Your task to perform on an android device: Open network settings Image 0: 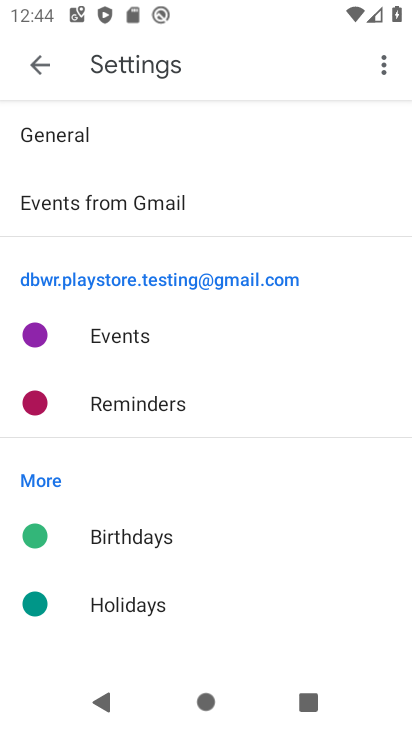
Step 0: press home button
Your task to perform on an android device: Open network settings Image 1: 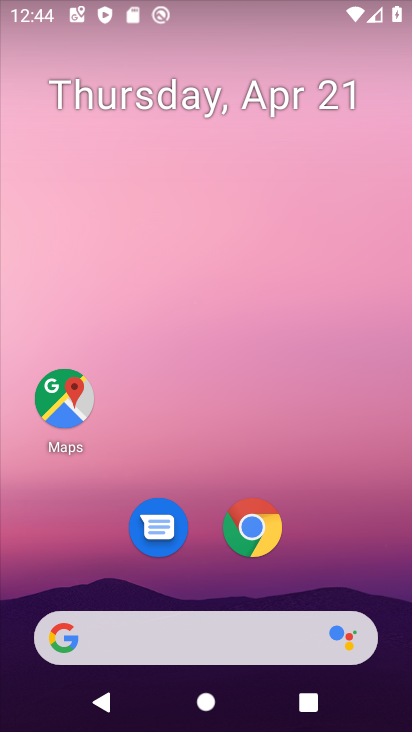
Step 1: drag from (350, 565) to (346, 92)
Your task to perform on an android device: Open network settings Image 2: 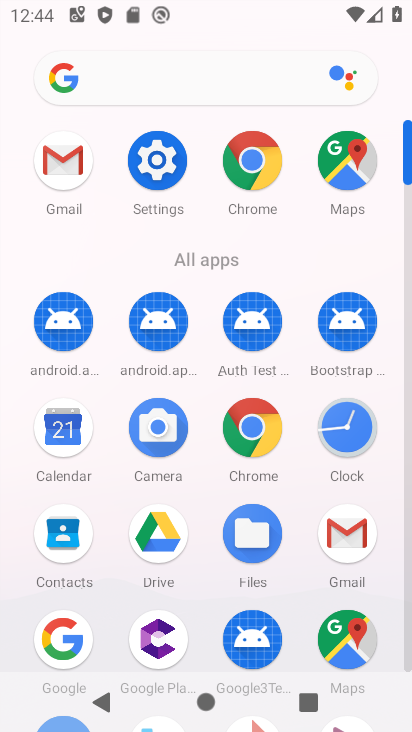
Step 2: click (163, 163)
Your task to perform on an android device: Open network settings Image 3: 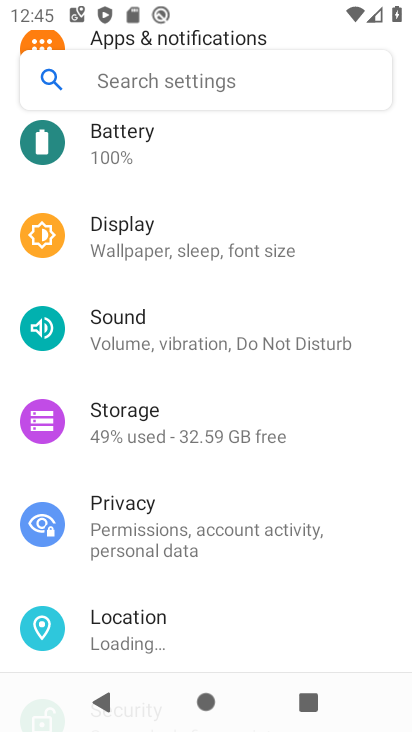
Step 3: drag from (349, 611) to (356, 379)
Your task to perform on an android device: Open network settings Image 4: 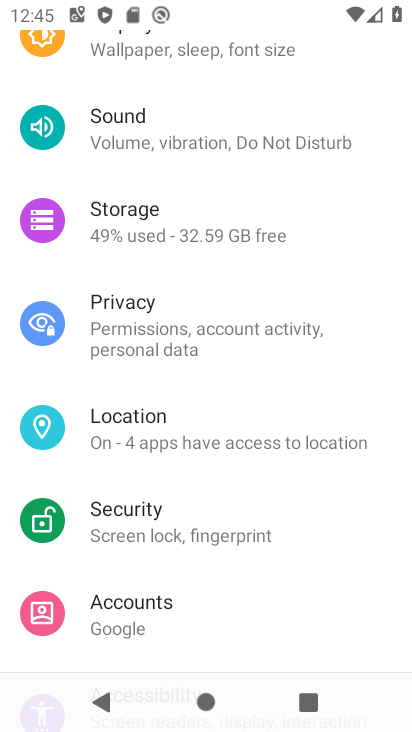
Step 4: drag from (360, 603) to (350, 341)
Your task to perform on an android device: Open network settings Image 5: 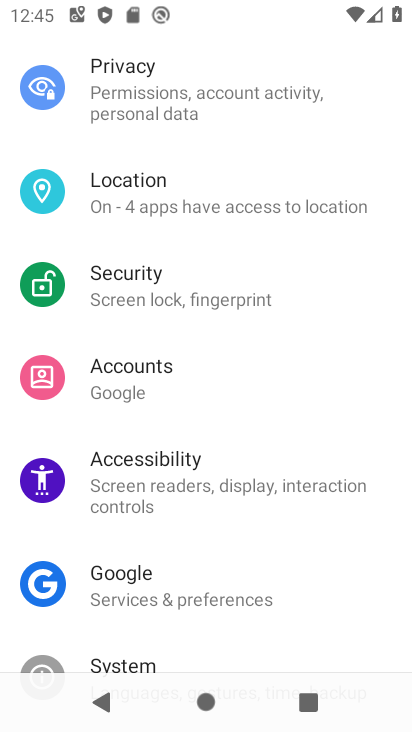
Step 5: drag from (323, 601) to (333, 403)
Your task to perform on an android device: Open network settings Image 6: 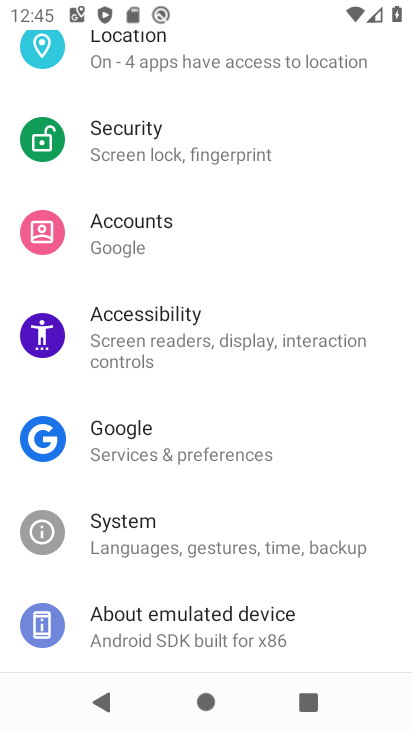
Step 6: drag from (341, 598) to (369, 380)
Your task to perform on an android device: Open network settings Image 7: 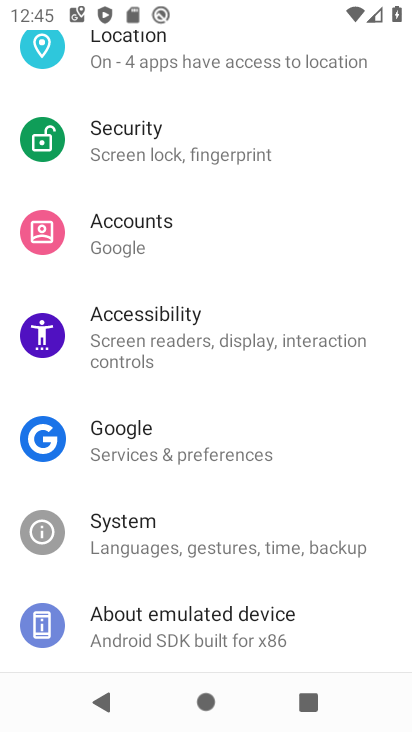
Step 7: drag from (370, 232) to (359, 440)
Your task to perform on an android device: Open network settings Image 8: 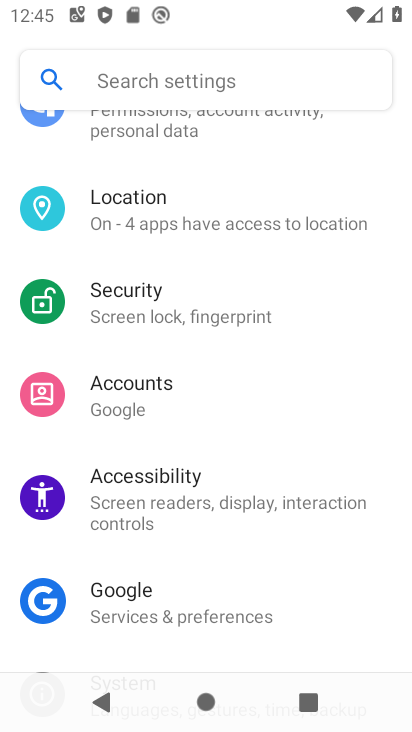
Step 8: drag from (372, 260) to (369, 444)
Your task to perform on an android device: Open network settings Image 9: 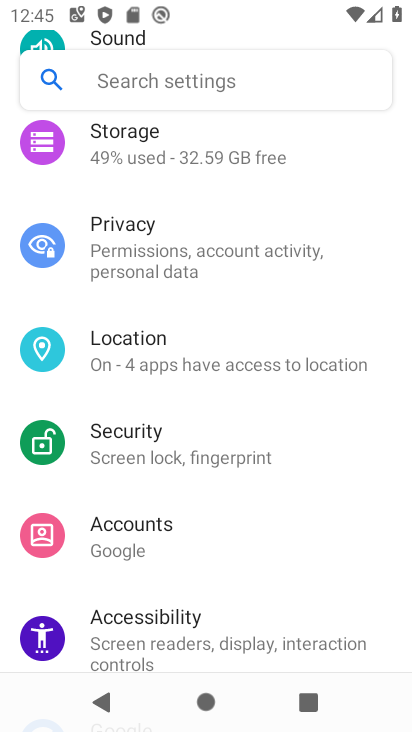
Step 9: drag from (384, 230) to (384, 506)
Your task to perform on an android device: Open network settings Image 10: 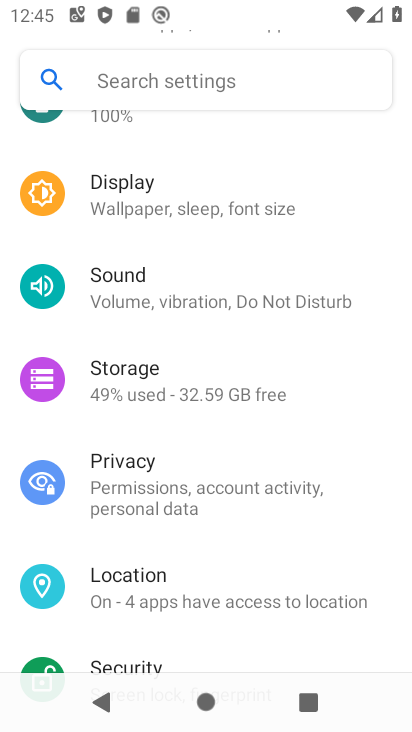
Step 10: drag from (374, 227) to (374, 434)
Your task to perform on an android device: Open network settings Image 11: 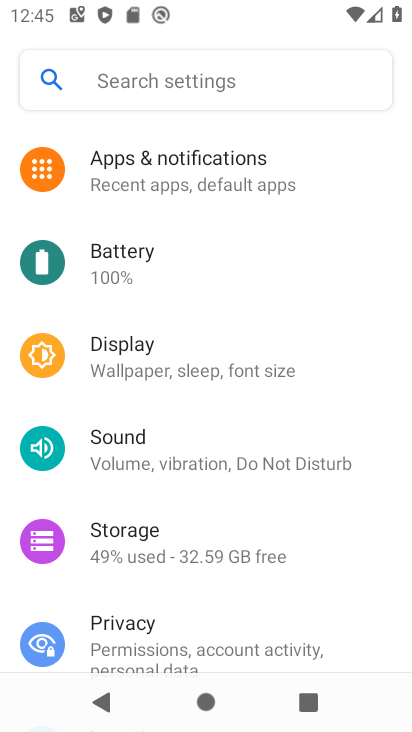
Step 11: drag from (365, 196) to (347, 432)
Your task to perform on an android device: Open network settings Image 12: 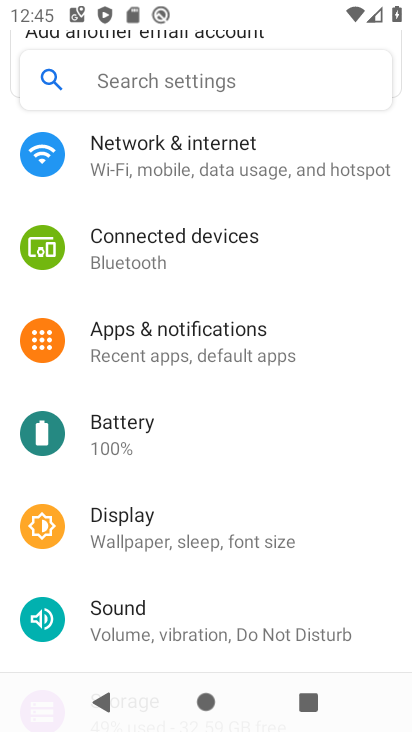
Step 12: click (239, 138)
Your task to perform on an android device: Open network settings Image 13: 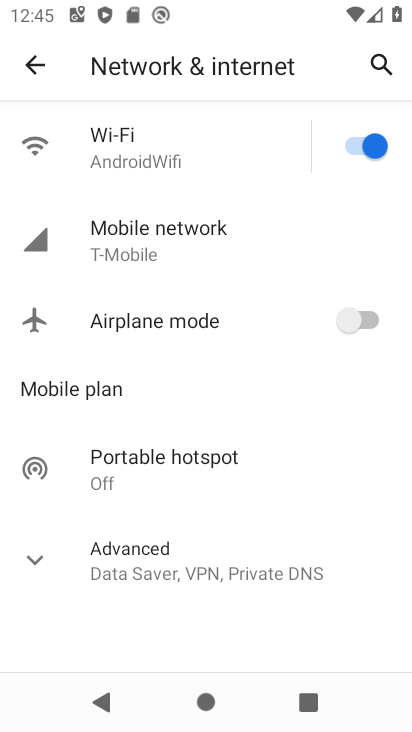
Step 13: task complete